Your task to perform on an android device: Go to Wikipedia Image 0: 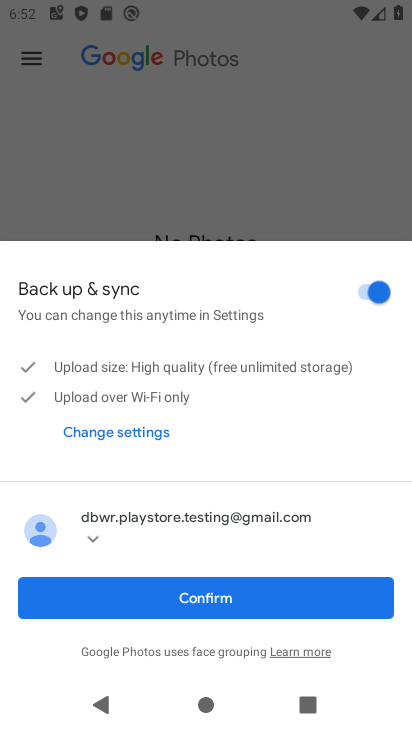
Step 0: press home button
Your task to perform on an android device: Go to Wikipedia Image 1: 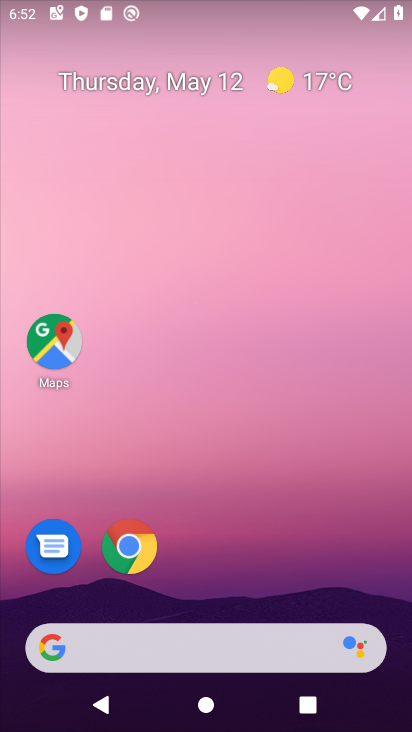
Step 1: click (132, 547)
Your task to perform on an android device: Go to Wikipedia Image 2: 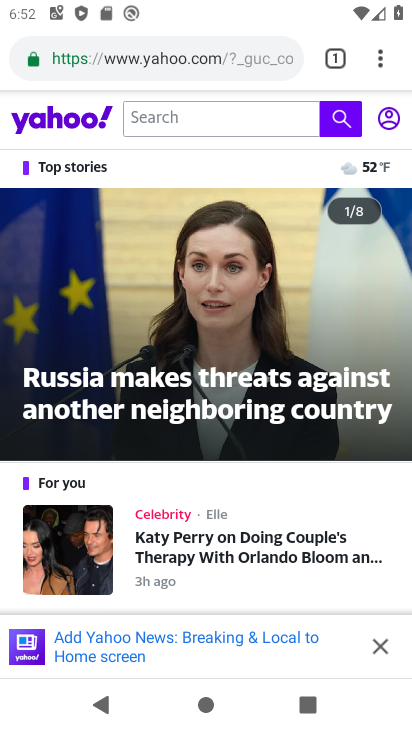
Step 2: click (380, 51)
Your task to perform on an android device: Go to Wikipedia Image 3: 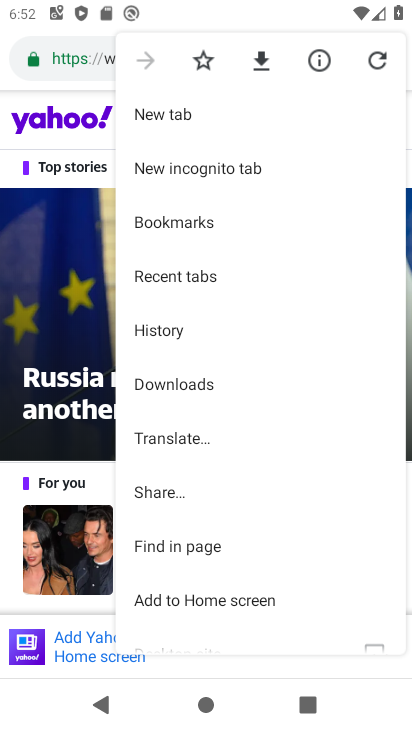
Step 3: click (177, 114)
Your task to perform on an android device: Go to Wikipedia Image 4: 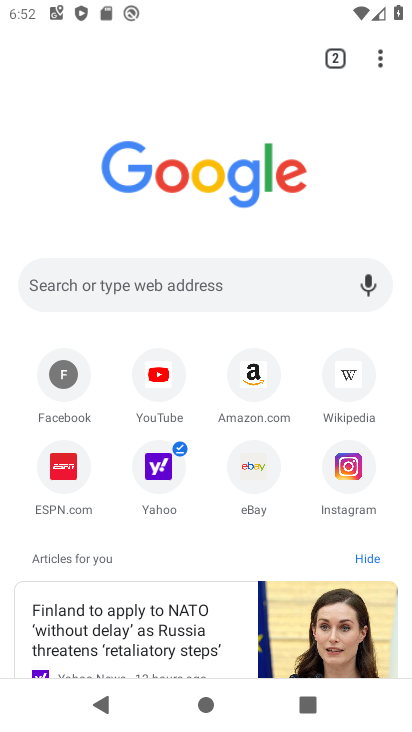
Step 4: click (356, 371)
Your task to perform on an android device: Go to Wikipedia Image 5: 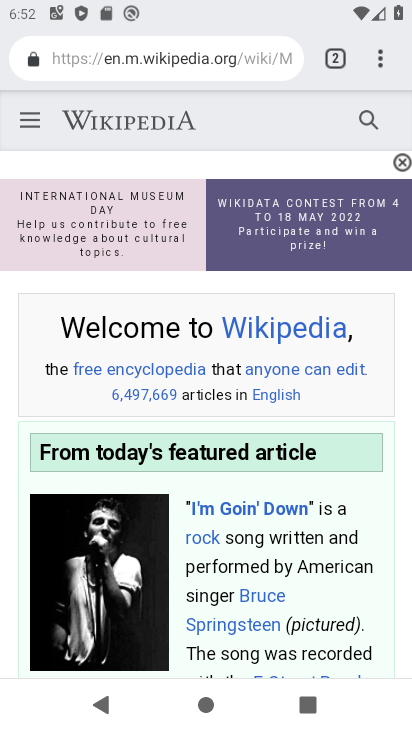
Step 5: task complete